Your task to perform on an android device: toggle pop-ups in chrome Image 0: 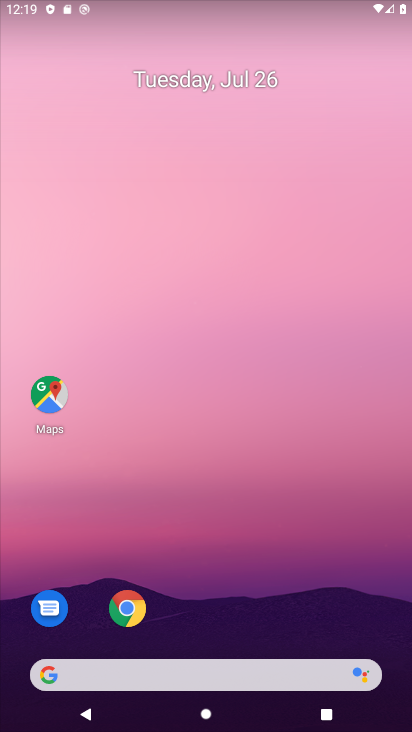
Step 0: press home button
Your task to perform on an android device: toggle pop-ups in chrome Image 1: 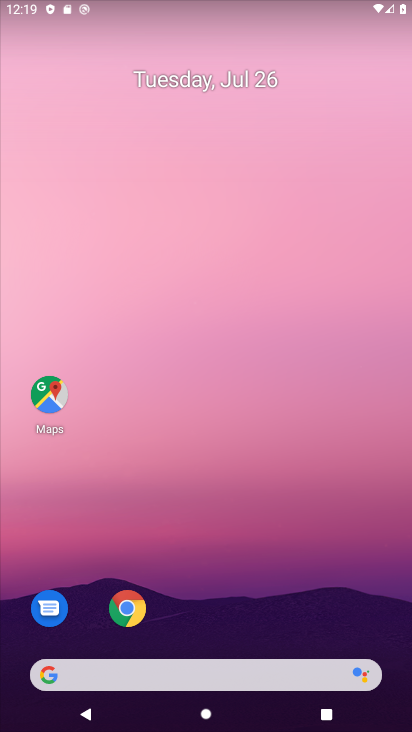
Step 1: drag from (339, 623) to (355, 135)
Your task to perform on an android device: toggle pop-ups in chrome Image 2: 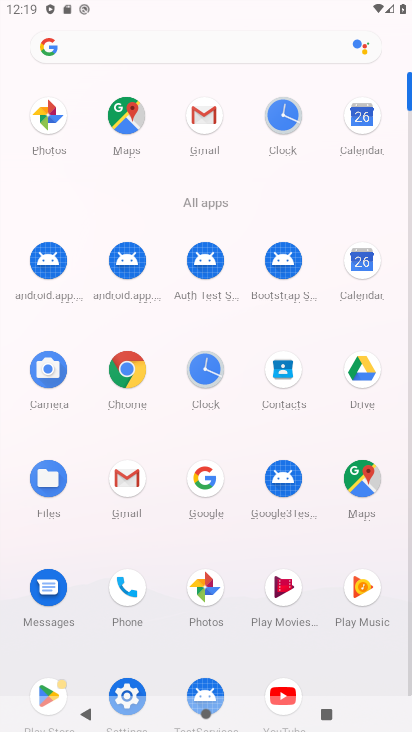
Step 2: click (128, 372)
Your task to perform on an android device: toggle pop-ups in chrome Image 3: 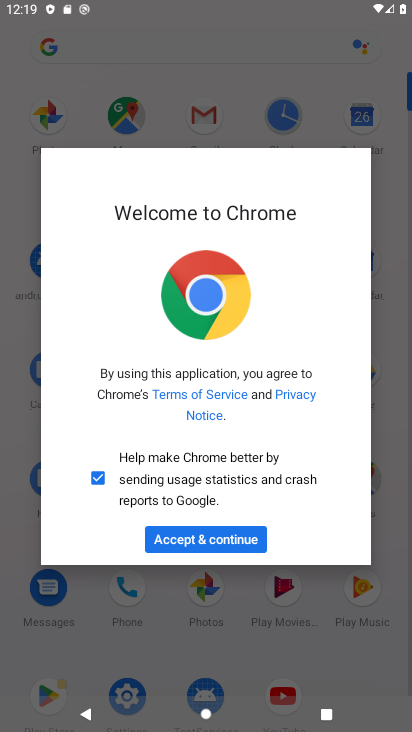
Step 3: click (206, 546)
Your task to perform on an android device: toggle pop-ups in chrome Image 4: 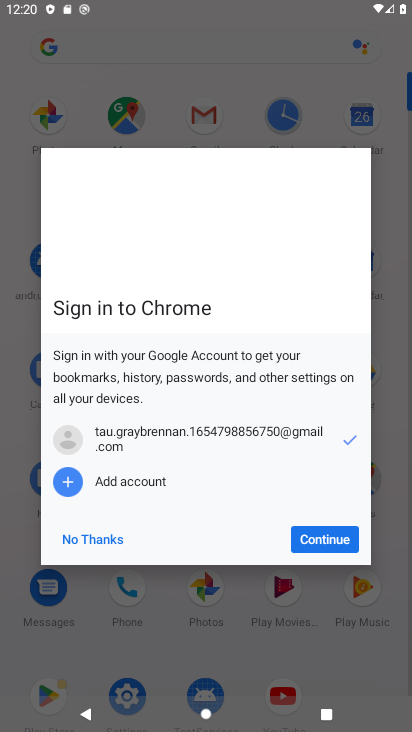
Step 4: click (325, 540)
Your task to perform on an android device: toggle pop-ups in chrome Image 5: 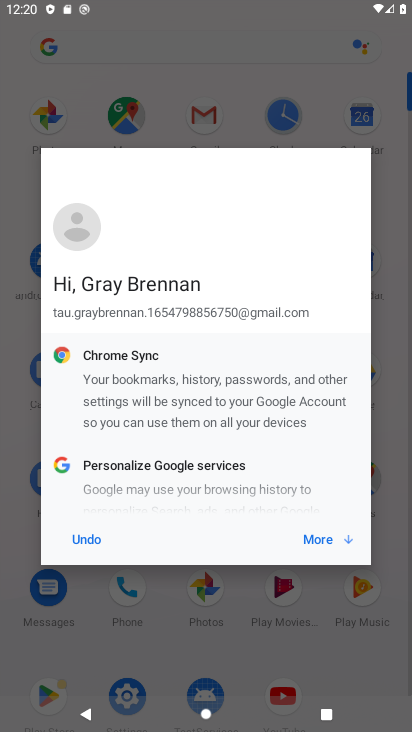
Step 5: click (325, 540)
Your task to perform on an android device: toggle pop-ups in chrome Image 6: 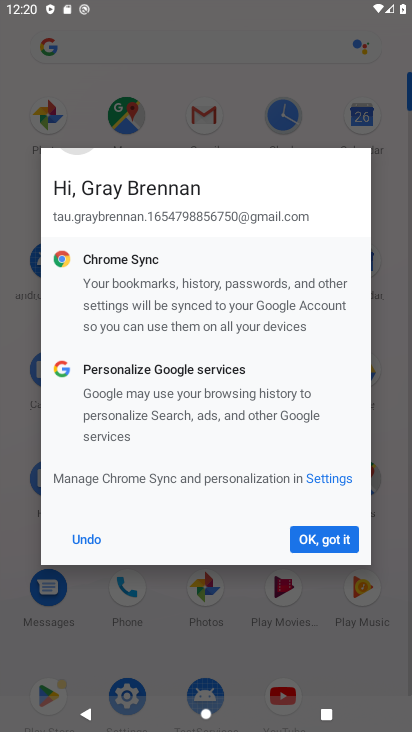
Step 6: click (325, 540)
Your task to perform on an android device: toggle pop-ups in chrome Image 7: 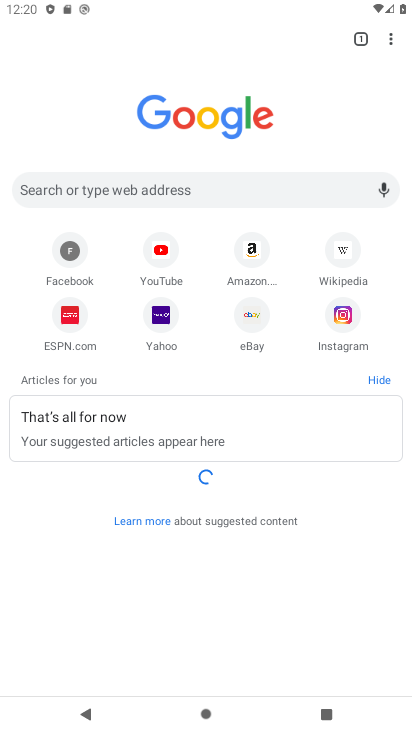
Step 7: click (390, 43)
Your task to perform on an android device: toggle pop-ups in chrome Image 8: 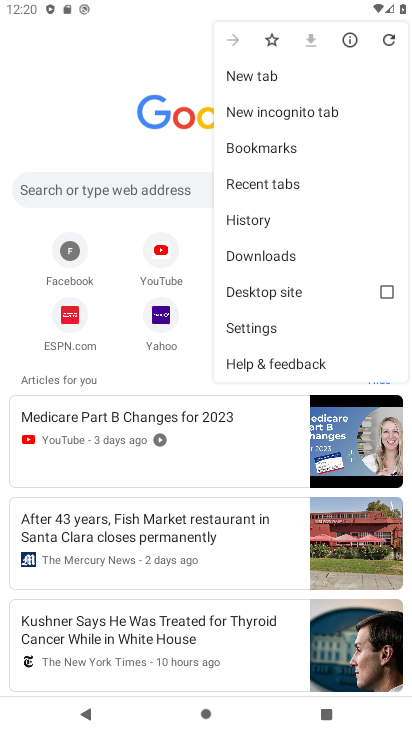
Step 8: click (294, 318)
Your task to perform on an android device: toggle pop-ups in chrome Image 9: 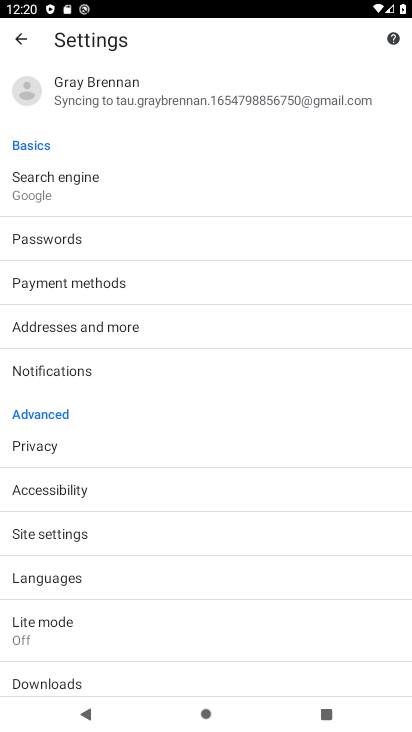
Step 9: drag from (269, 437) to (268, 367)
Your task to perform on an android device: toggle pop-ups in chrome Image 10: 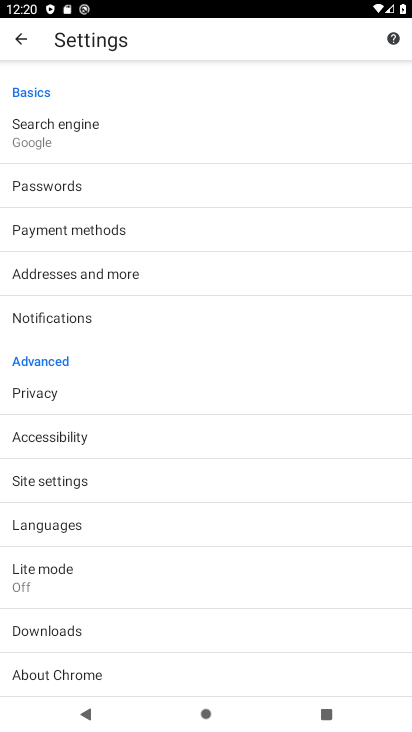
Step 10: drag from (268, 463) to (272, 383)
Your task to perform on an android device: toggle pop-ups in chrome Image 11: 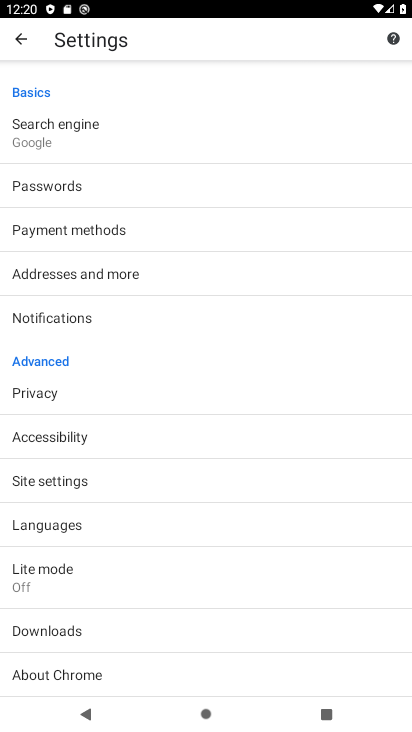
Step 11: click (269, 478)
Your task to perform on an android device: toggle pop-ups in chrome Image 12: 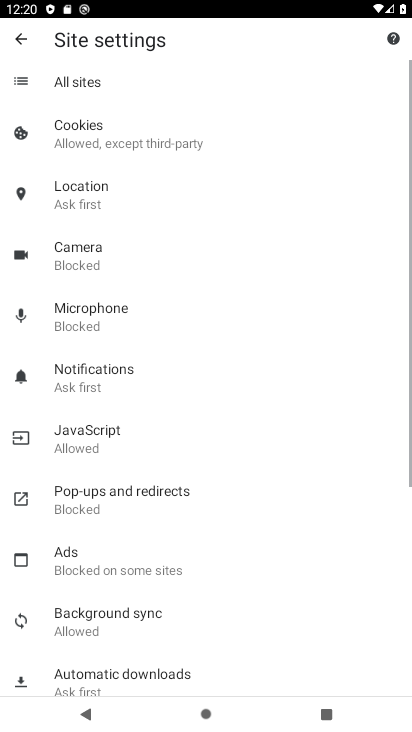
Step 12: drag from (269, 478) to (279, 392)
Your task to perform on an android device: toggle pop-ups in chrome Image 13: 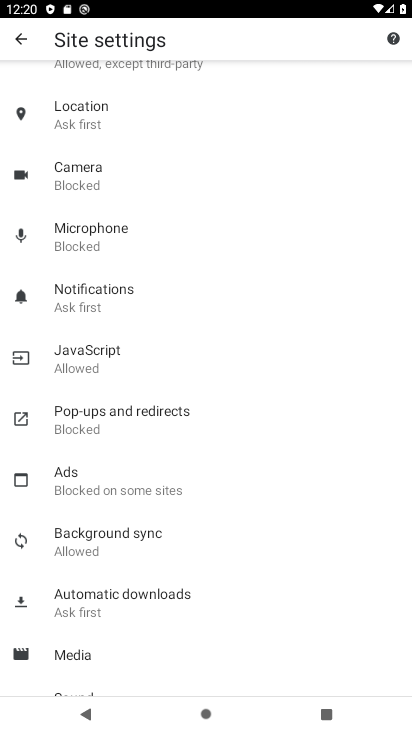
Step 13: drag from (282, 494) to (286, 305)
Your task to perform on an android device: toggle pop-ups in chrome Image 14: 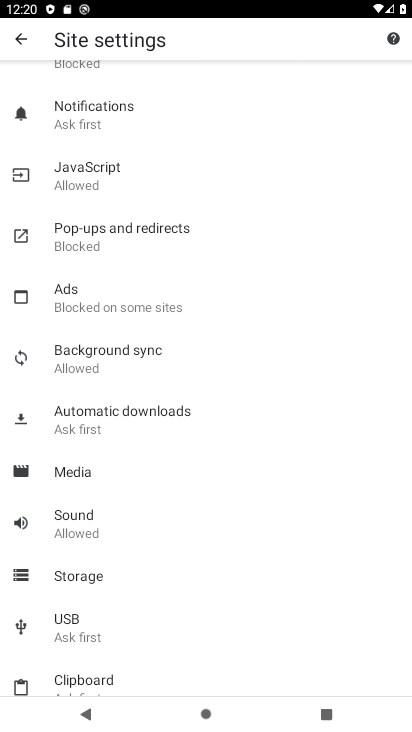
Step 14: click (227, 244)
Your task to perform on an android device: toggle pop-ups in chrome Image 15: 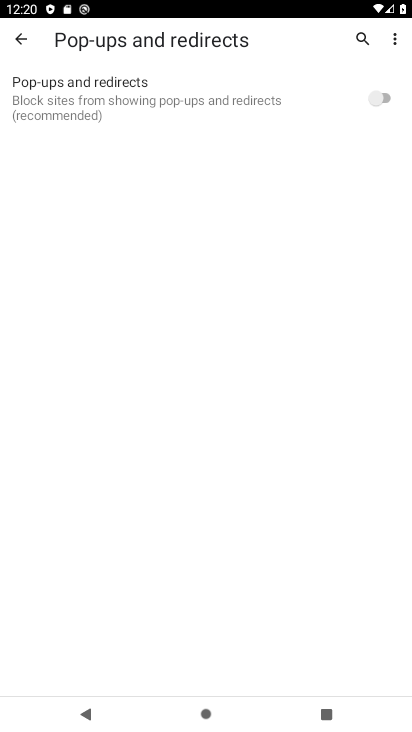
Step 15: click (372, 99)
Your task to perform on an android device: toggle pop-ups in chrome Image 16: 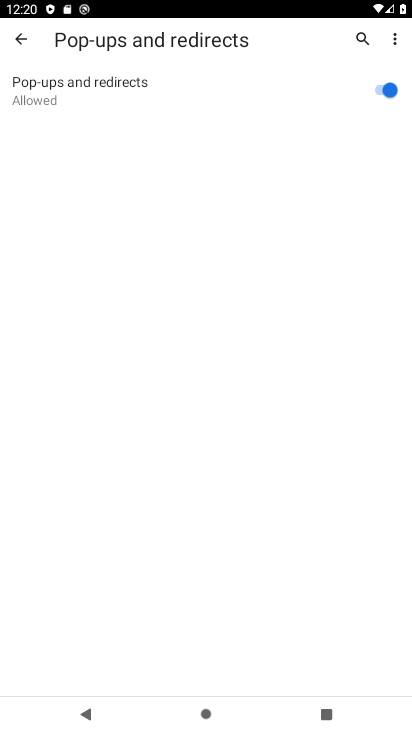
Step 16: task complete